Your task to perform on an android device: set the timer Image 0: 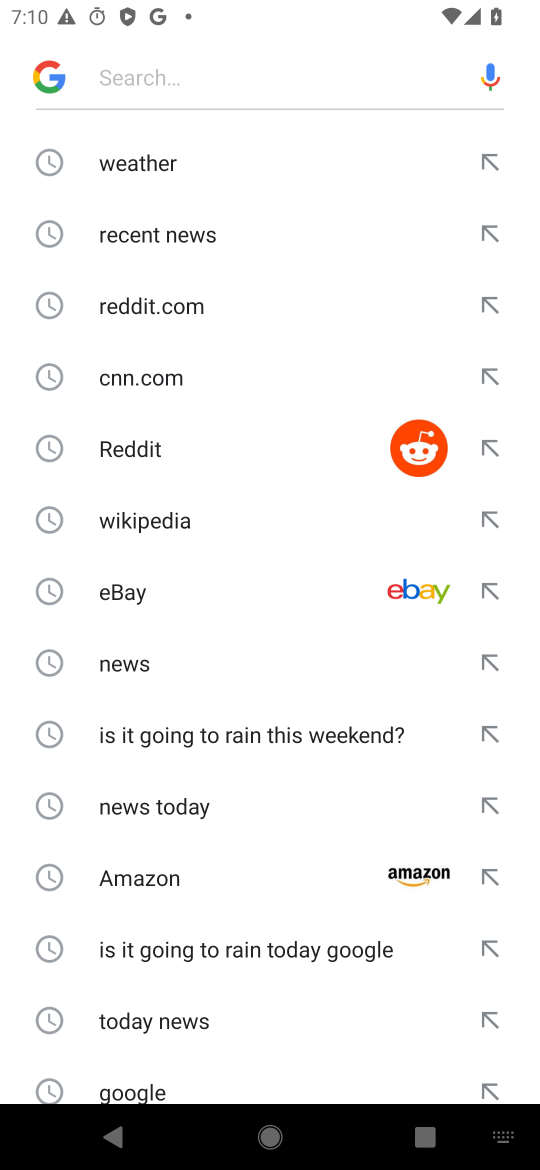
Step 0: press home button
Your task to perform on an android device: set the timer Image 1: 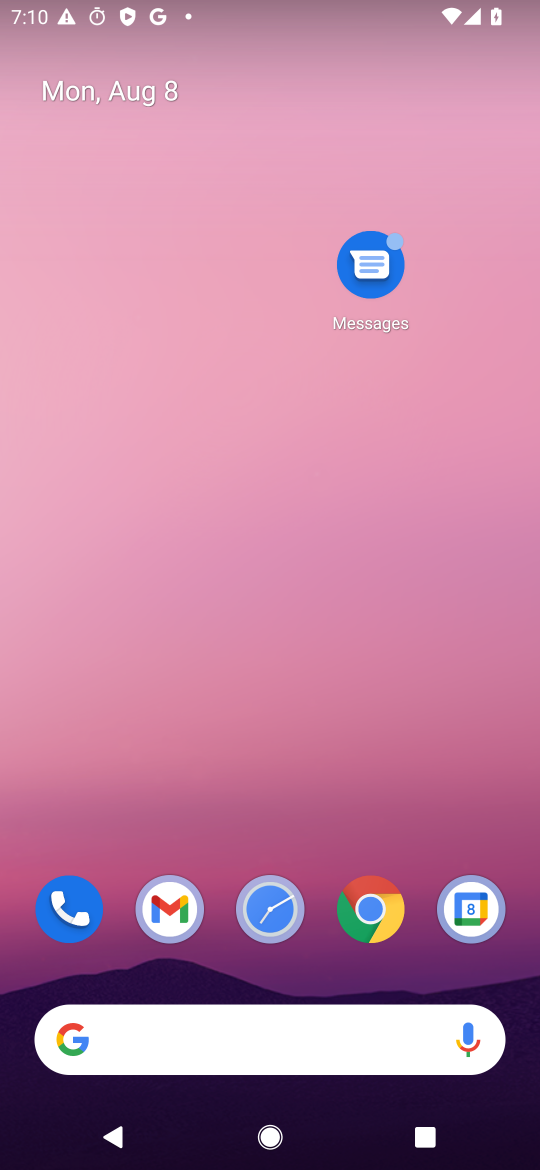
Step 1: click (271, 904)
Your task to perform on an android device: set the timer Image 2: 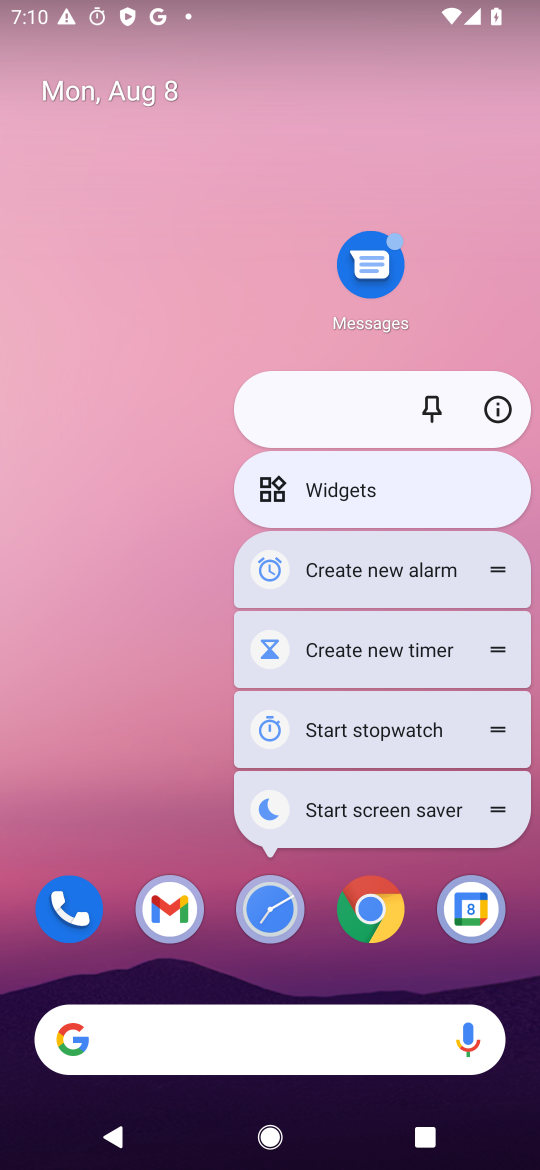
Step 2: click (269, 919)
Your task to perform on an android device: set the timer Image 3: 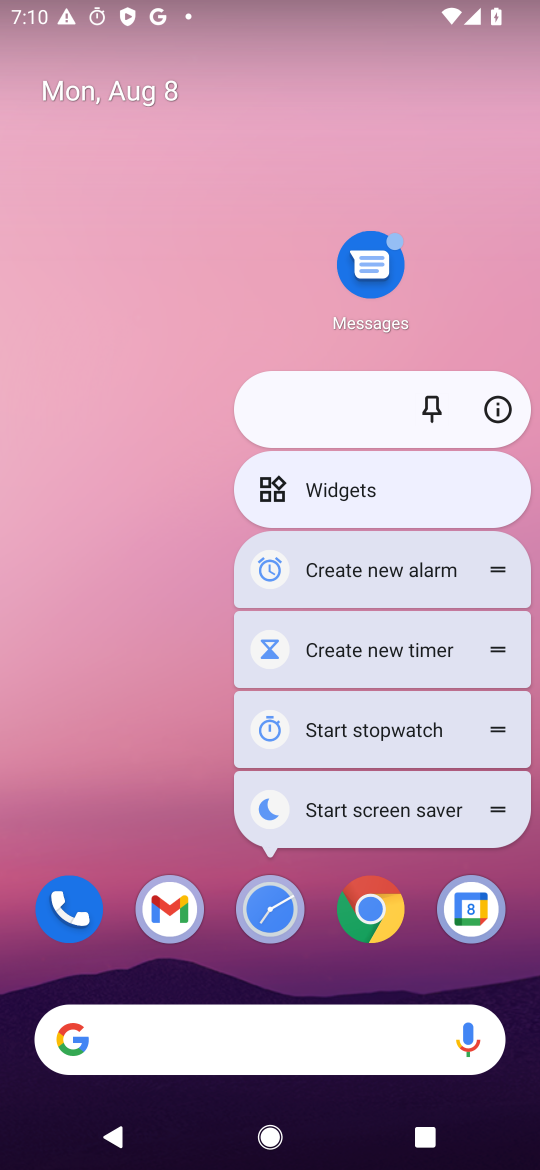
Step 3: click (274, 912)
Your task to perform on an android device: set the timer Image 4: 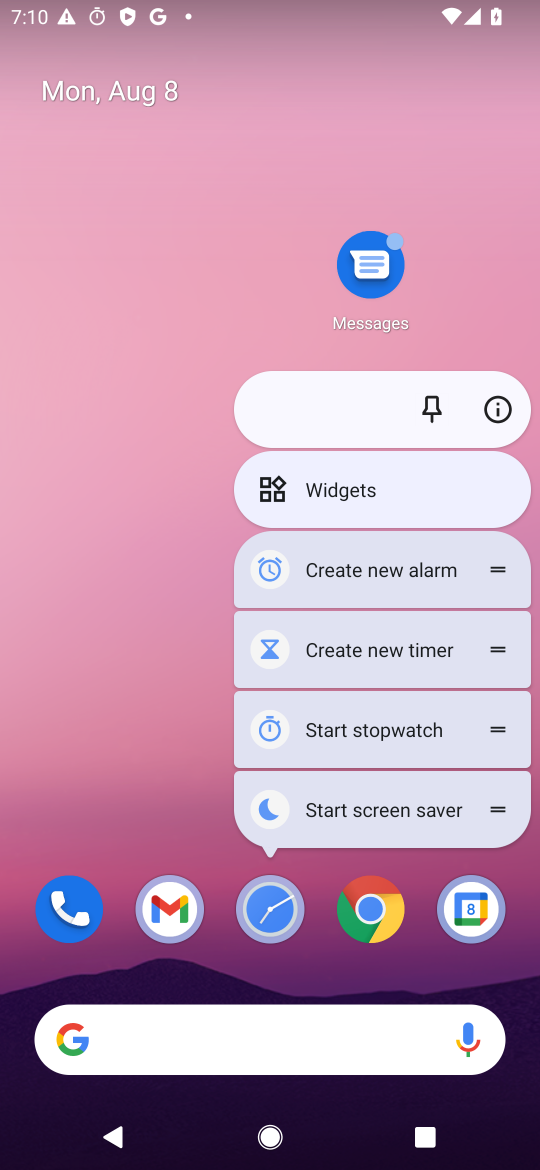
Step 4: click (274, 913)
Your task to perform on an android device: set the timer Image 5: 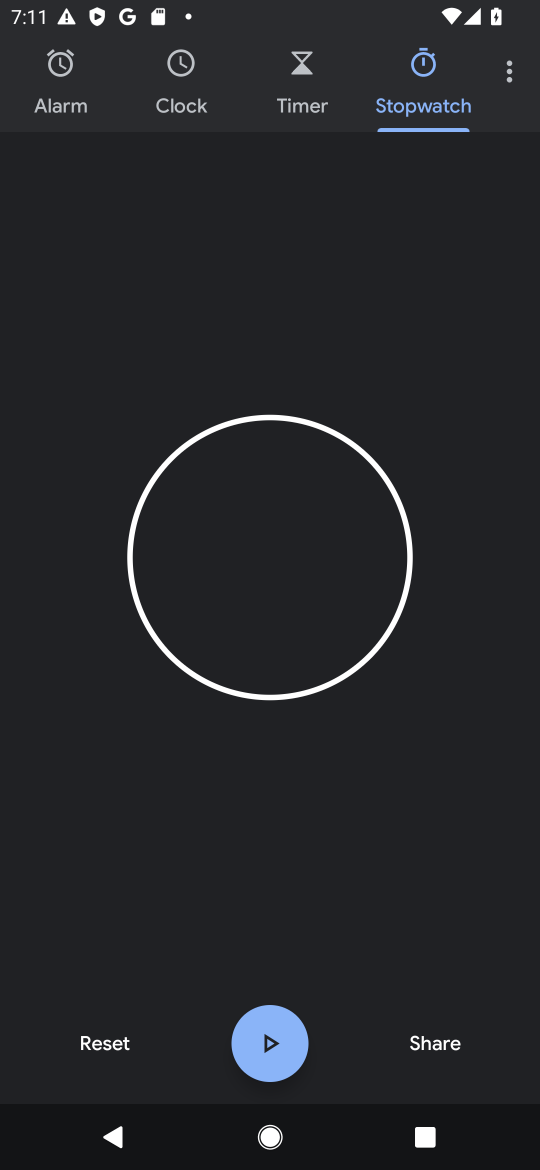
Step 5: click (315, 88)
Your task to perform on an android device: set the timer Image 6: 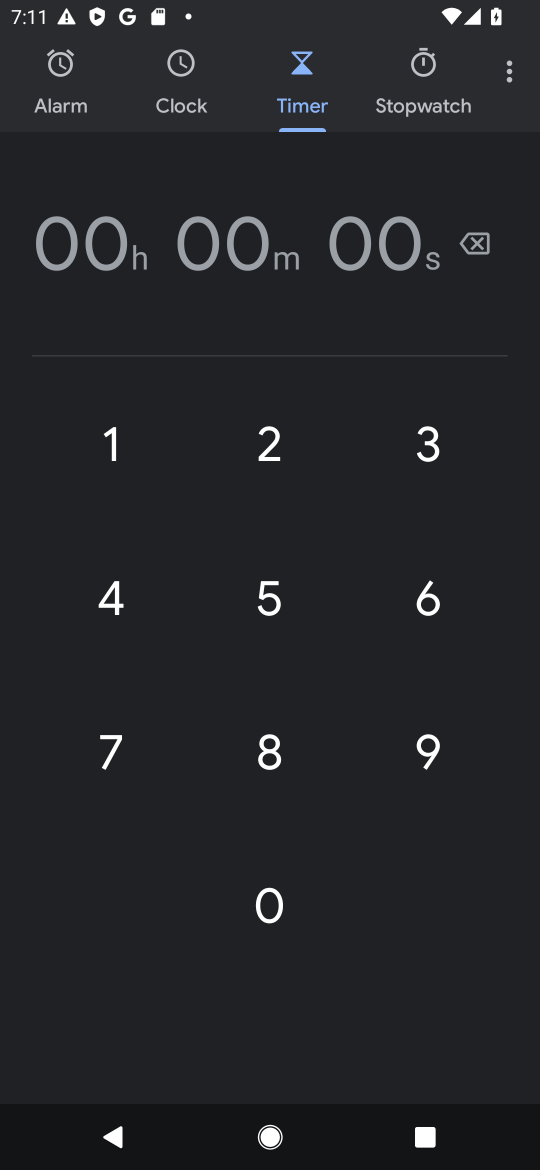
Step 6: click (120, 443)
Your task to perform on an android device: set the timer Image 7: 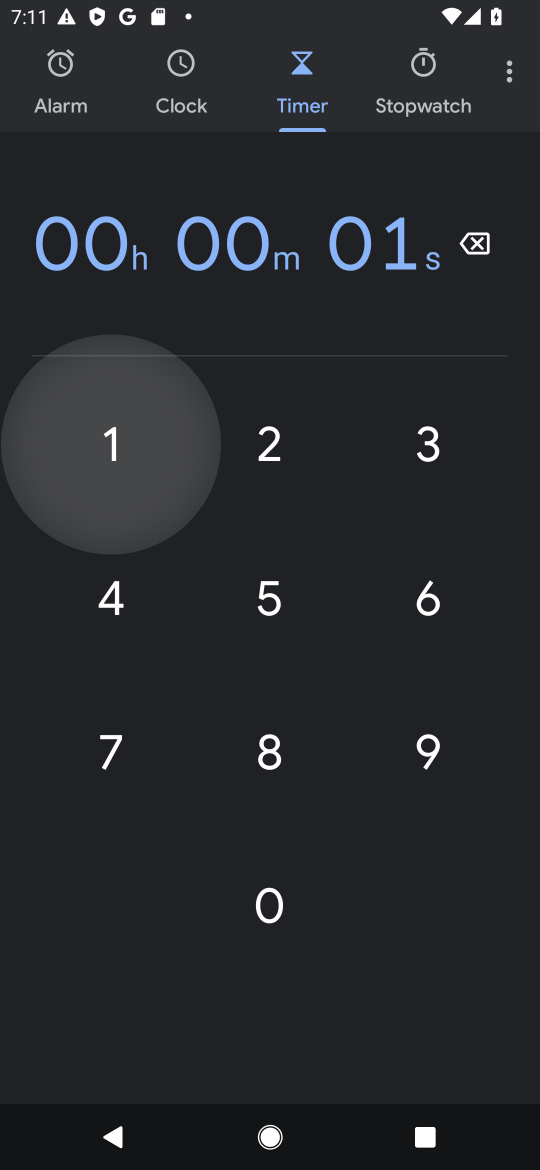
Step 7: click (259, 758)
Your task to perform on an android device: set the timer Image 8: 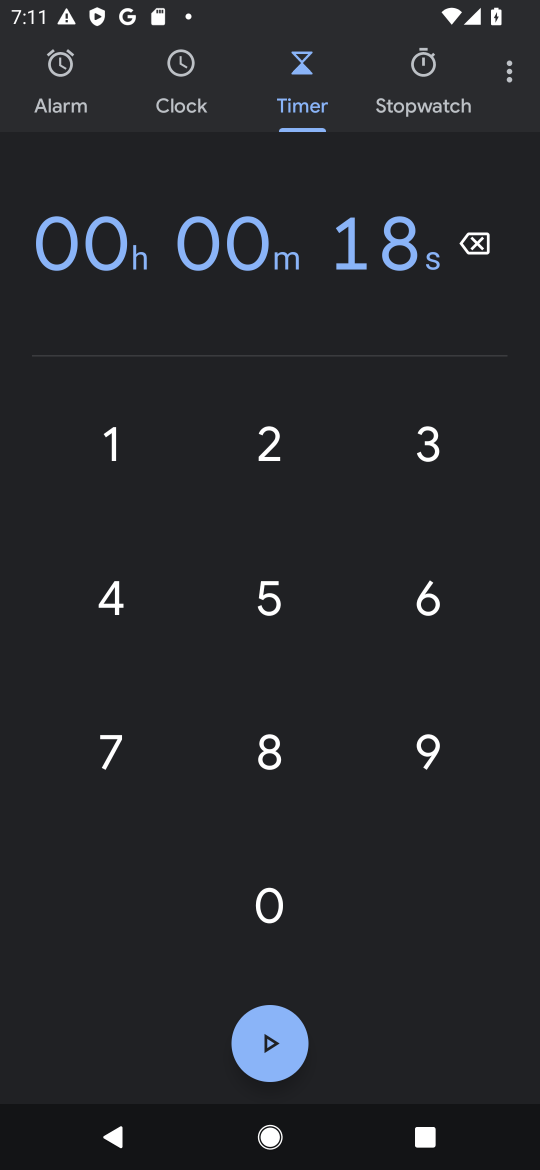
Step 8: click (270, 1056)
Your task to perform on an android device: set the timer Image 9: 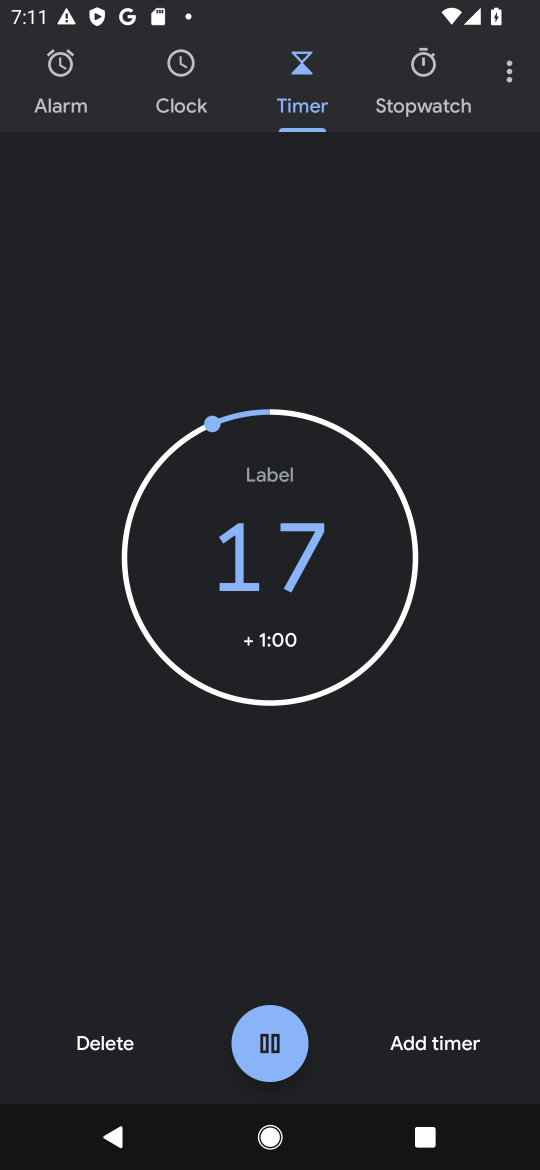
Step 9: click (269, 1056)
Your task to perform on an android device: set the timer Image 10: 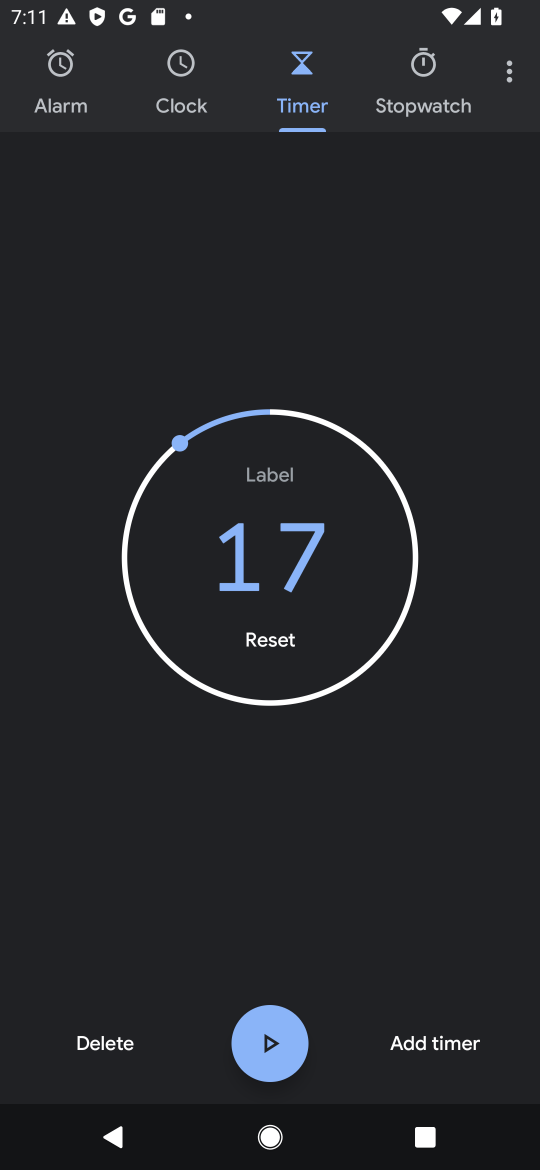
Step 10: task complete